Your task to perform on an android device: turn on showing notifications on the lock screen Image 0: 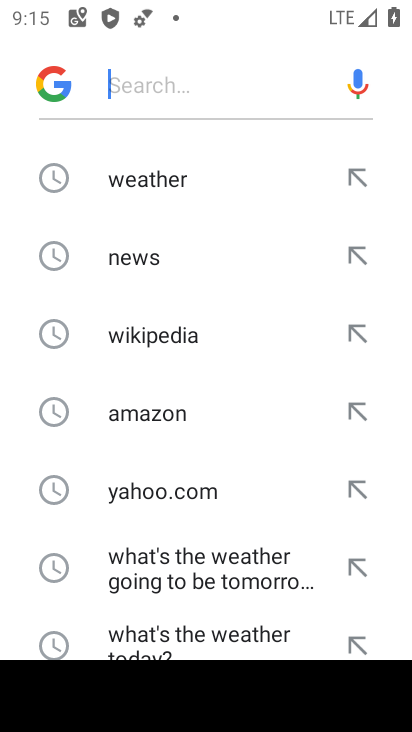
Step 0: press home button
Your task to perform on an android device: turn on showing notifications on the lock screen Image 1: 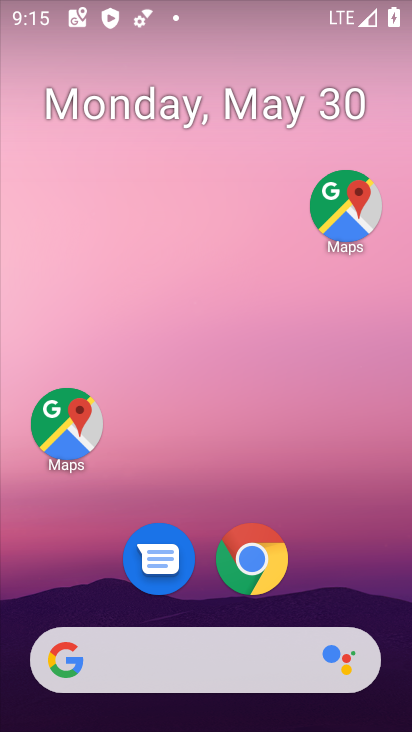
Step 1: drag from (304, 510) to (285, 225)
Your task to perform on an android device: turn on showing notifications on the lock screen Image 2: 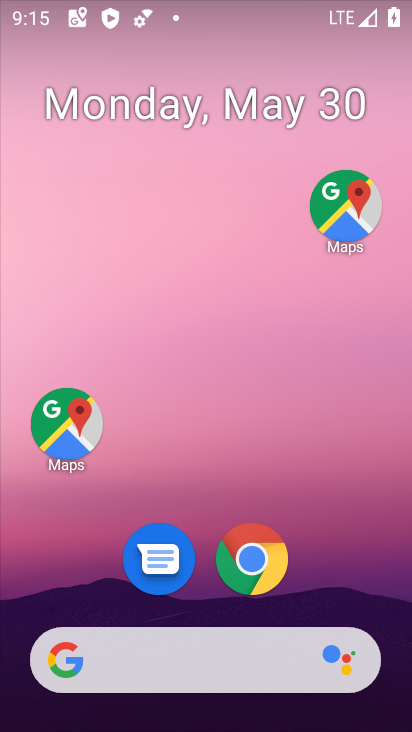
Step 2: drag from (337, 528) to (244, 93)
Your task to perform on an android device: turn on showing notifications on the lock screen Image 3: 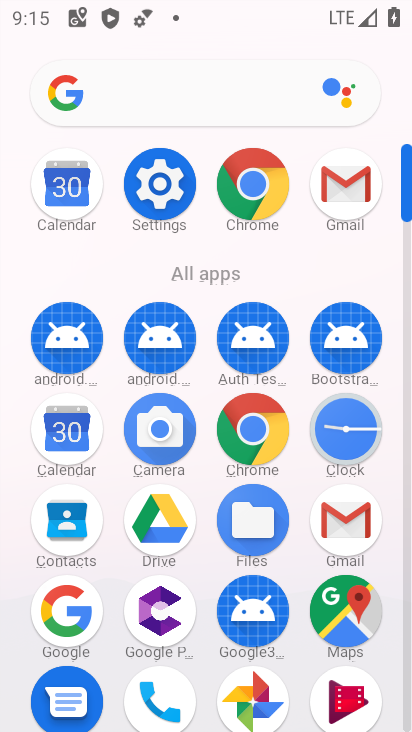
Step 3: click (160, 178)
Your task to perform on an android device: turn on showing notifications on the lock screen Image 4: 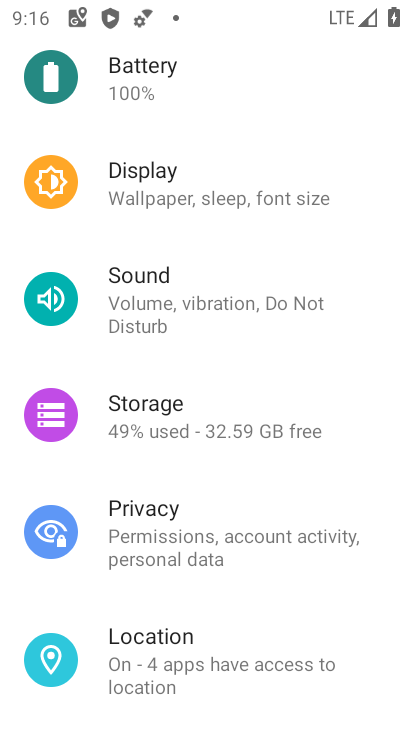
Step 4: drag from (242, 170) to (246, 636)
Your task to perform on an android device: turn on showing notifications on the lock screen Image 5: 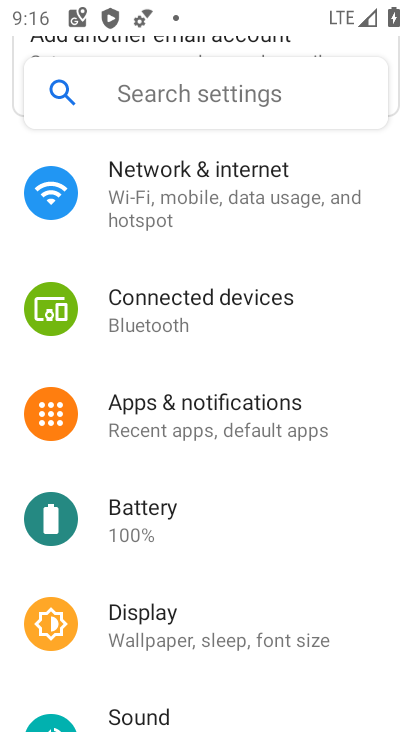
Step 5: click (220, 433)
Your task to perform on an android device: turn on showing notifications on the lock screen Image 6: 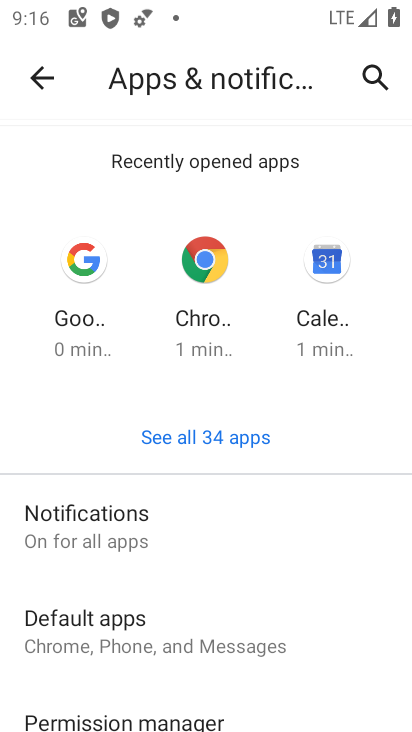
Step 6: drag from (205, 563) to (230, 194)
Your task to perform on an android device: turn on showing notifications on the lock screen Image 7: 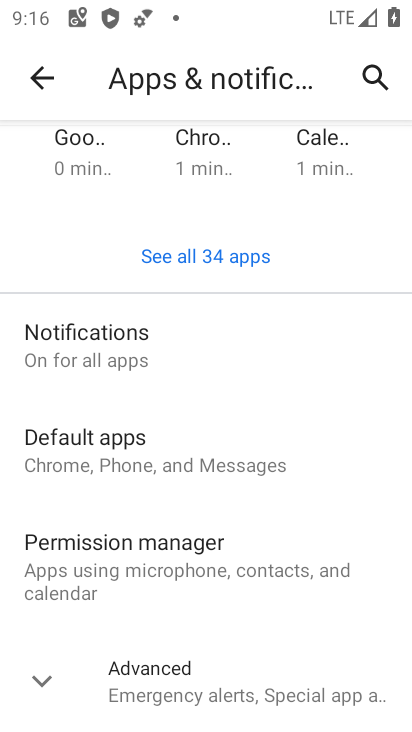
Step 7: click (82, 350)
Your task to perform on an android device: turn on showing notifications on the lock screen Image 8: 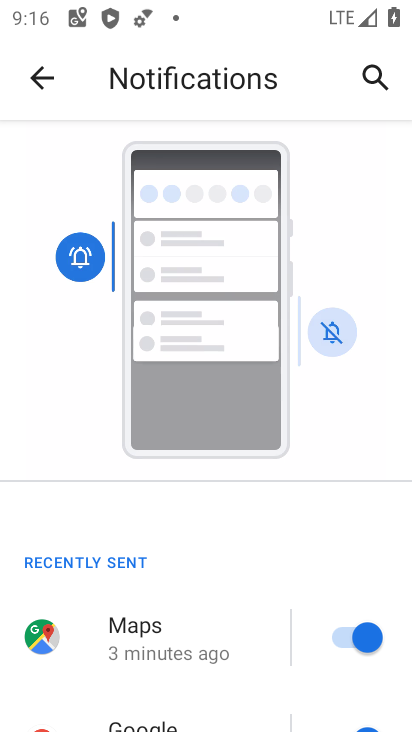
Step 8: drag from (141, 549) to (210, 21)
Your task to perform on an android device: turn on showing notifications on the lock screen Image 9: 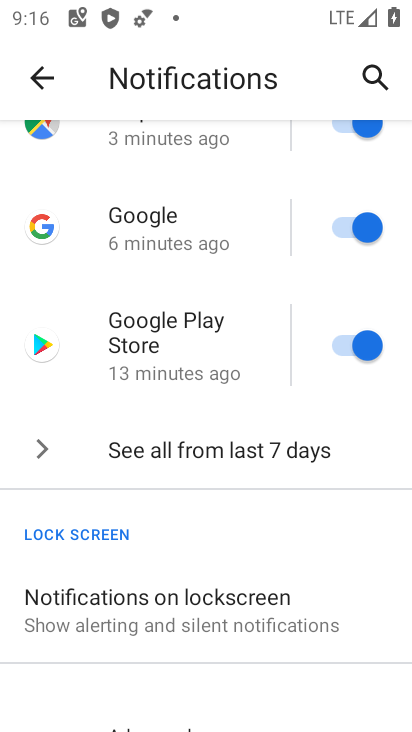
Step 9: drag from (217, 527) to (259, 177)
Your task to perform on an android device: turn on showing notifications on the lock screen Image 10: 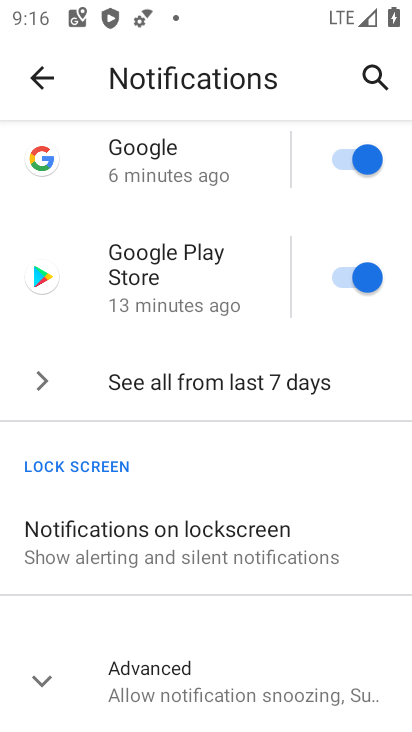
Step 10: click (212, 545)
Your task to perform on an android device: turn on showing notifications on the lock screen Image 11: 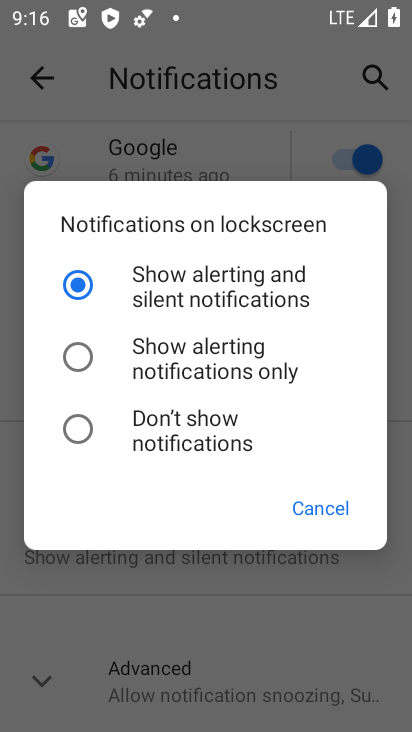
Step 11: click (219, 365)
Your task to perform on an android device: turn on showing notifications on the lock screen Image 12: 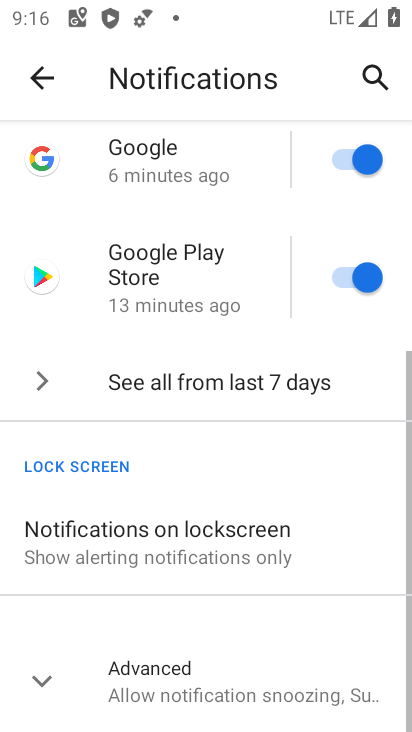
Step 12: task complete